Your task to perform on an android device: Search for razer blade on newegg.com, select the first entry, and add it to the cart. Image 0: 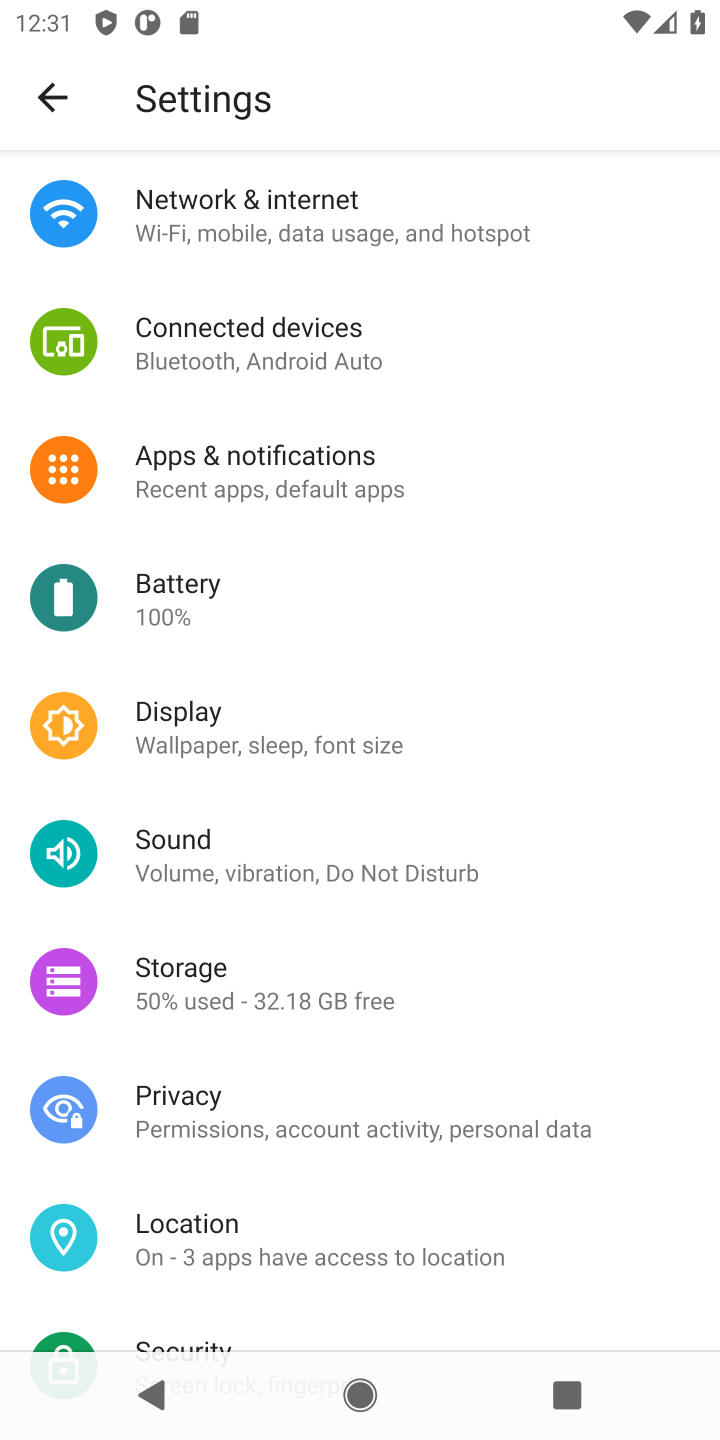
Step 0: press home button
Your task to perform on an android device: Search for razer blade on newegg.com, select the first entry, and add it to the cart. Image 1: 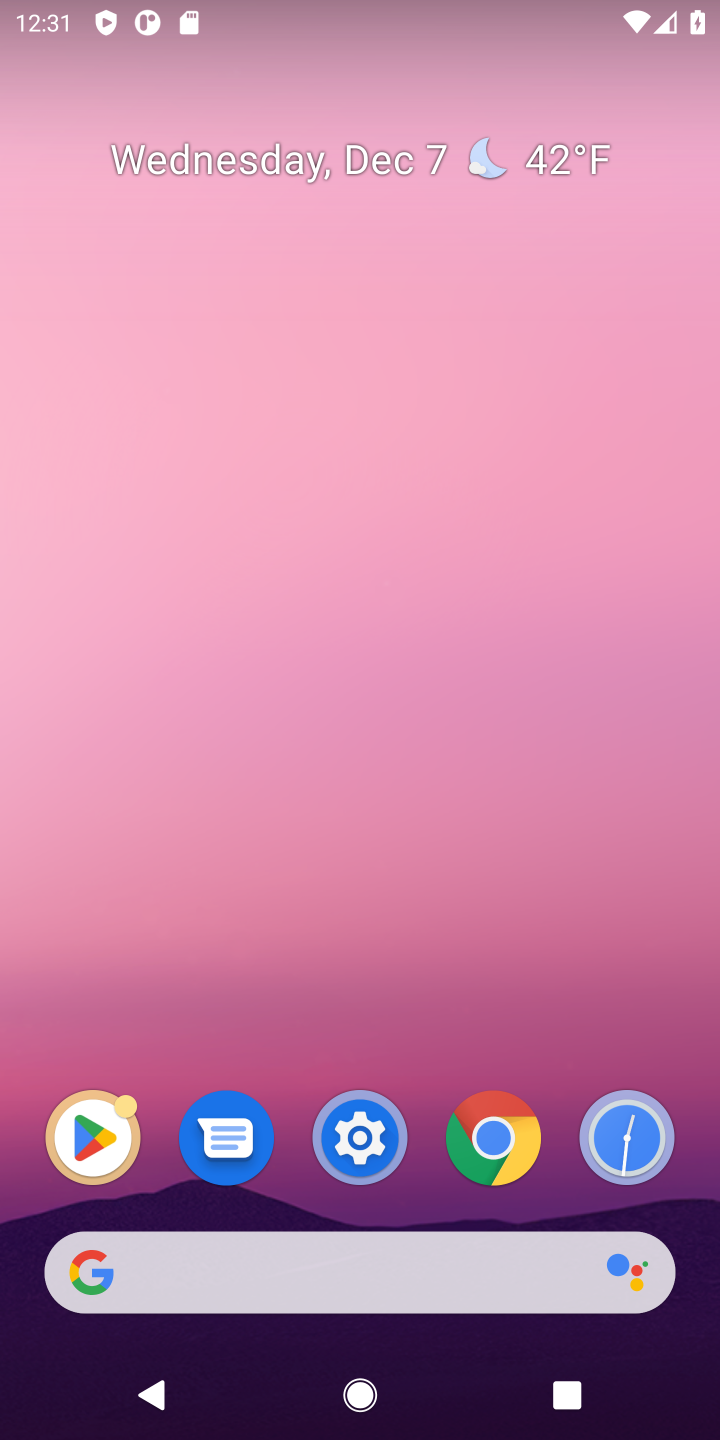
Step 1: click (377, 1255)
Your task to perform on an android device: Search for razer blade on newegg.com, select the first entry, and add it to the cart. Image 2: 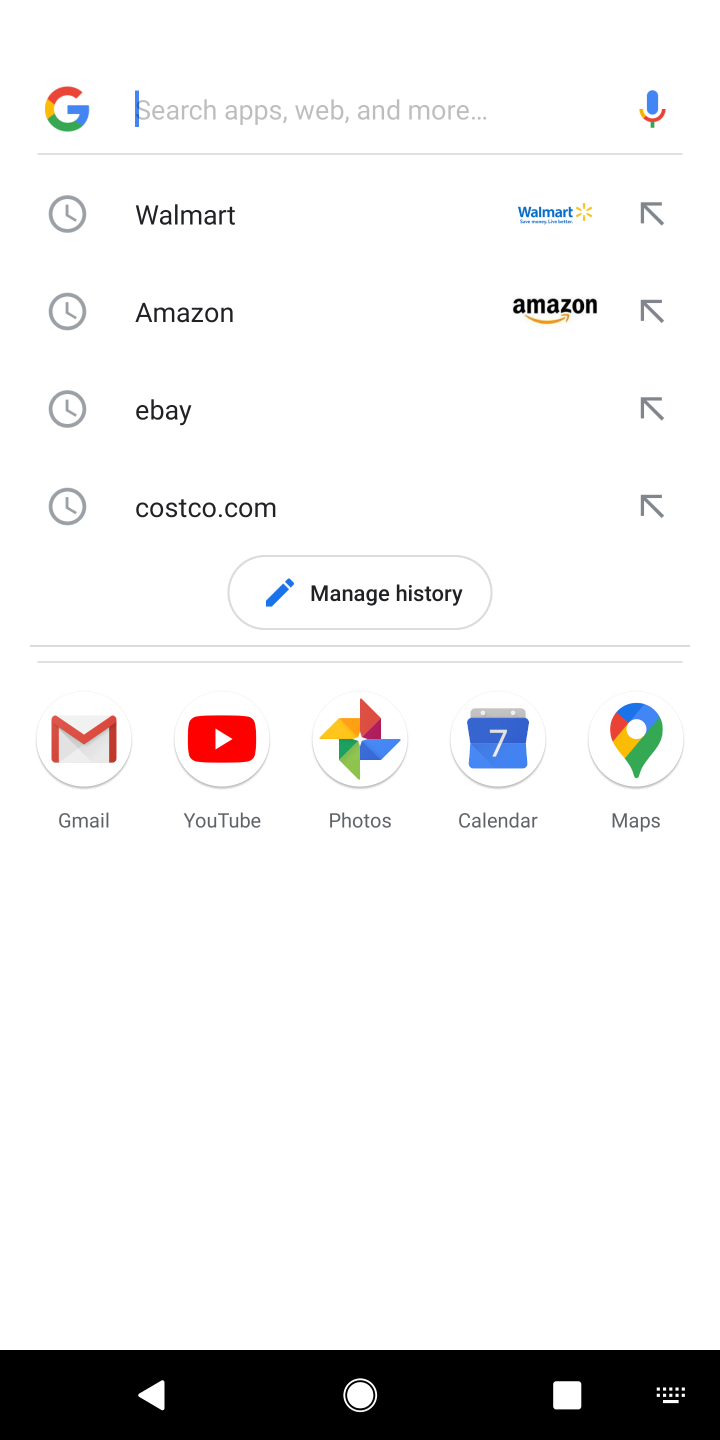
Step 2: type "newegg"
Your task to perform on an android device: Search for razer blade on newegg.com, select the first entry, and add it to the cart. Image 3: 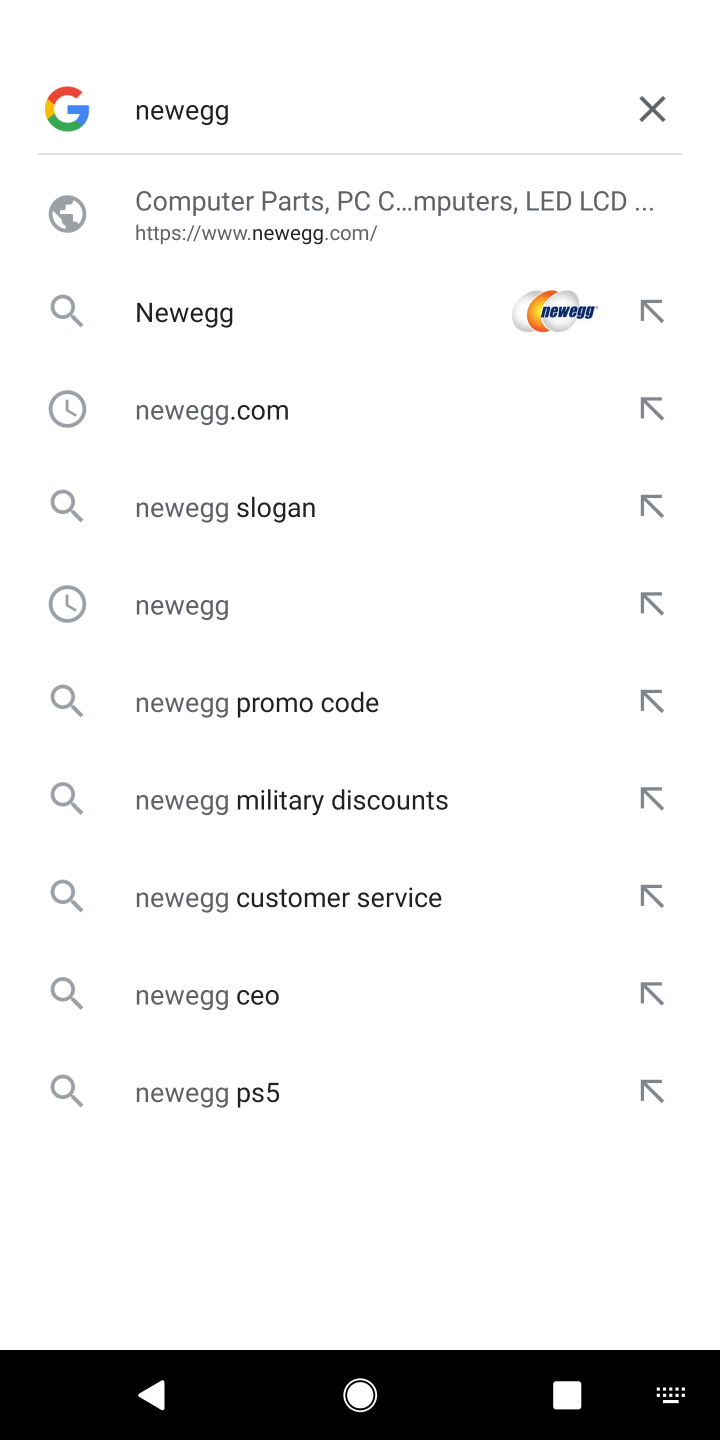
Step 3: click (297, 172)
Your task to perform on an android device: Search for razer blade on newegg.com, select the first entry, and add it to the cart. Image 4: 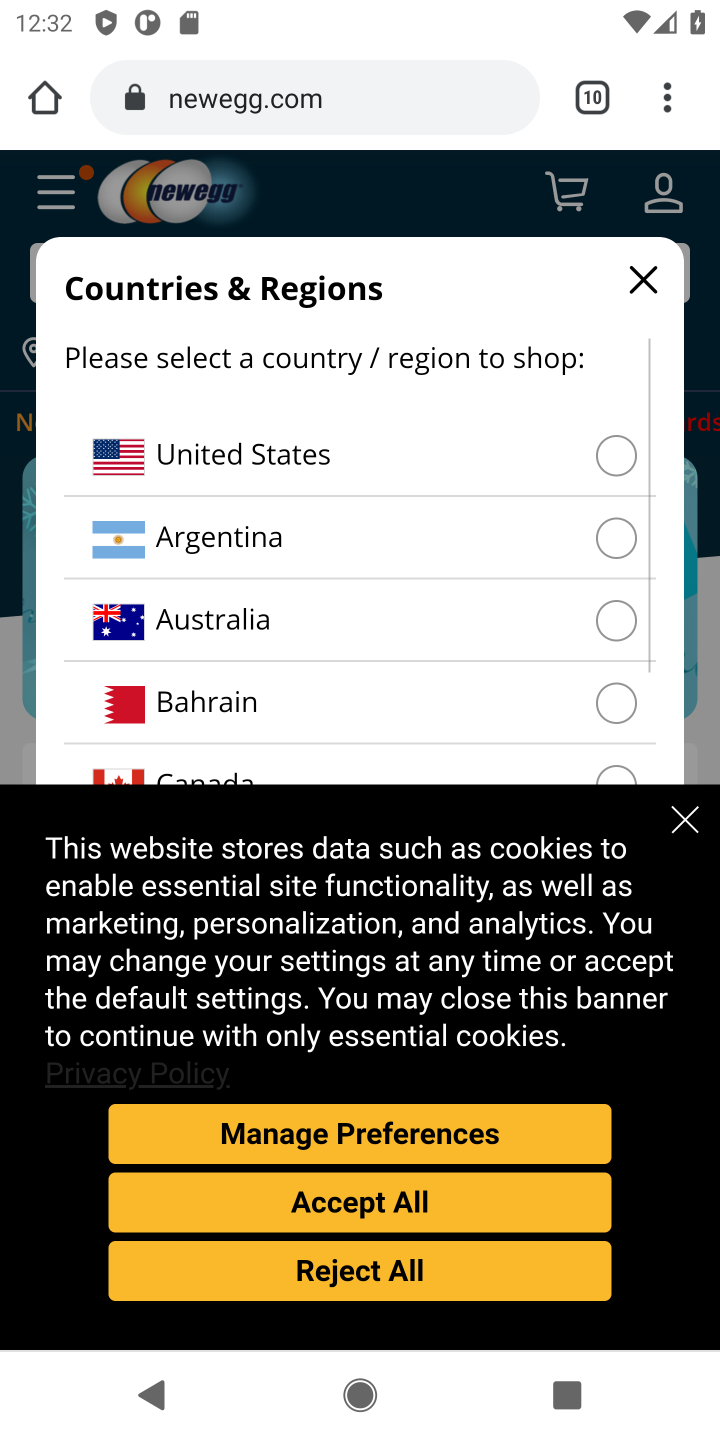
Step 4: click (283, 1228)
Your task to perform on an android device: Search for razer blade on newegg.com, select the first entry, and add it to the cart. Image 5: 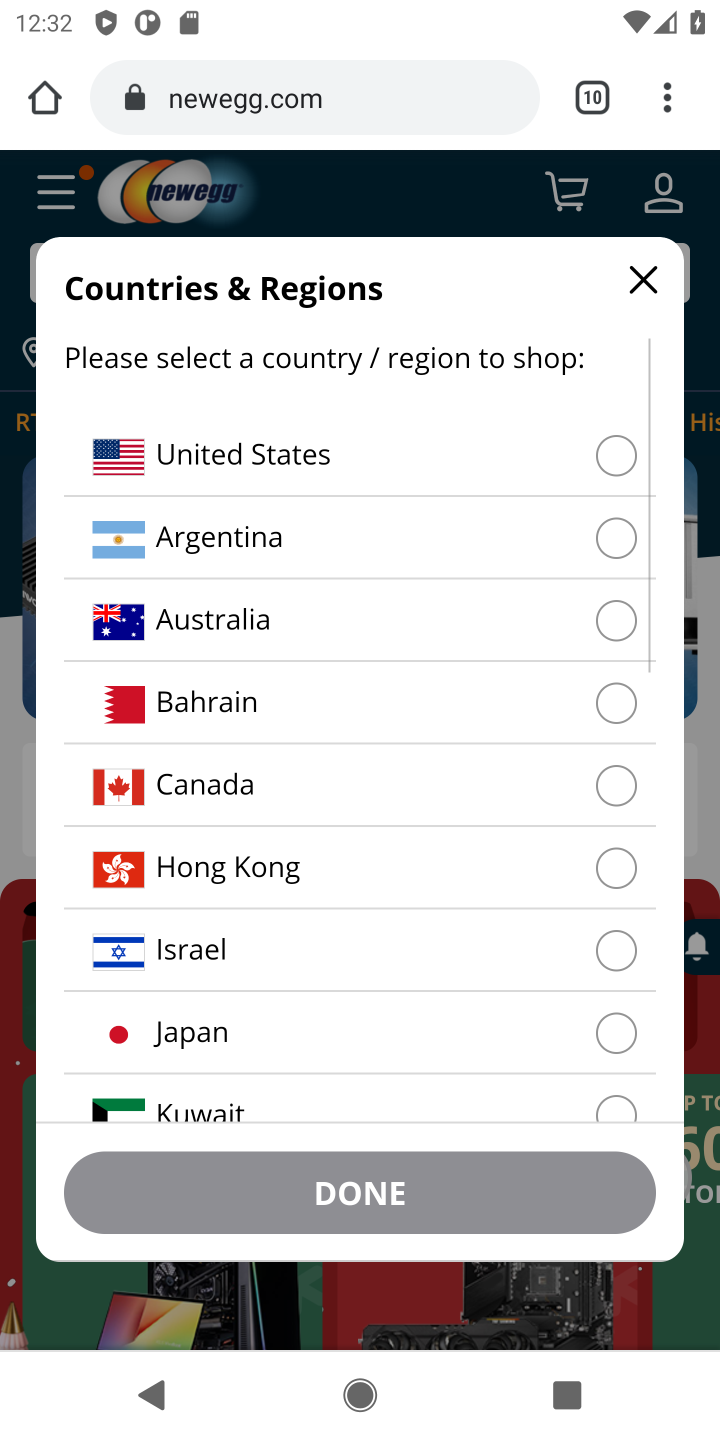
Step 5: click (481, 433)
Your task to perform on an android device: Search for razer blade on newegg.com, select the first entry, and add it to the cart. Image 6: 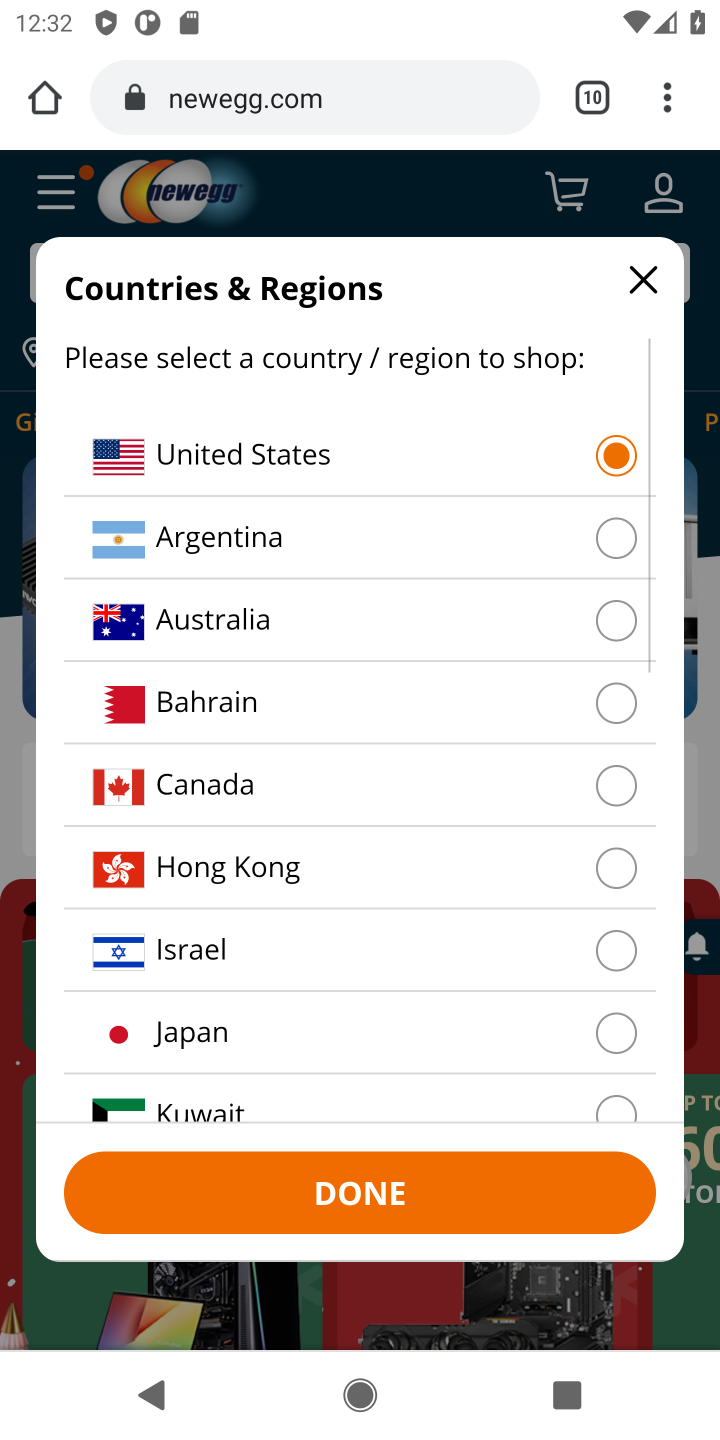
Step 6: click (434, 1184)
Your task to perform on an android device: Search for razer blade on newegg.com, select the first entry, and add it to the cart. Image 7: 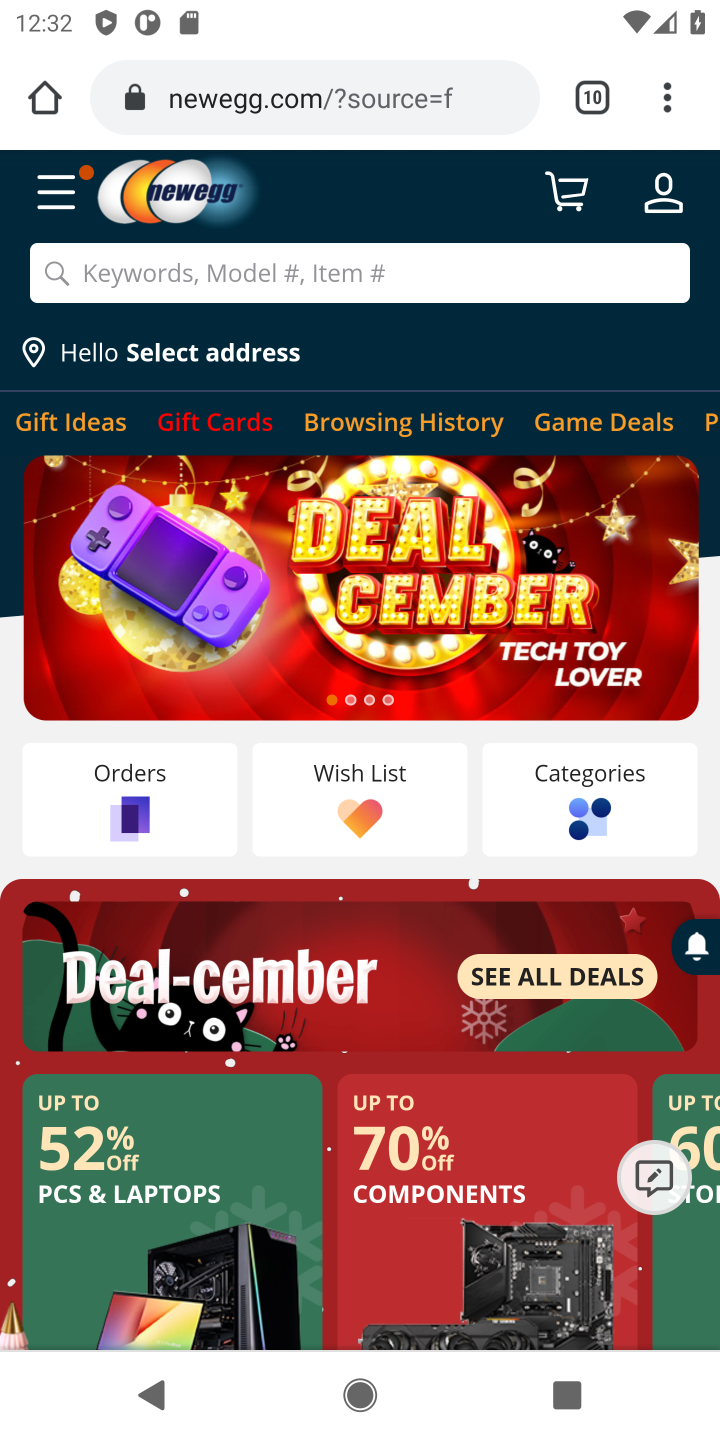
Step 7: type "razer blade"
Your task to perform on an android device: Search for razer blade on newegg.com, select the first entry, and add it to the cart. Image 8: 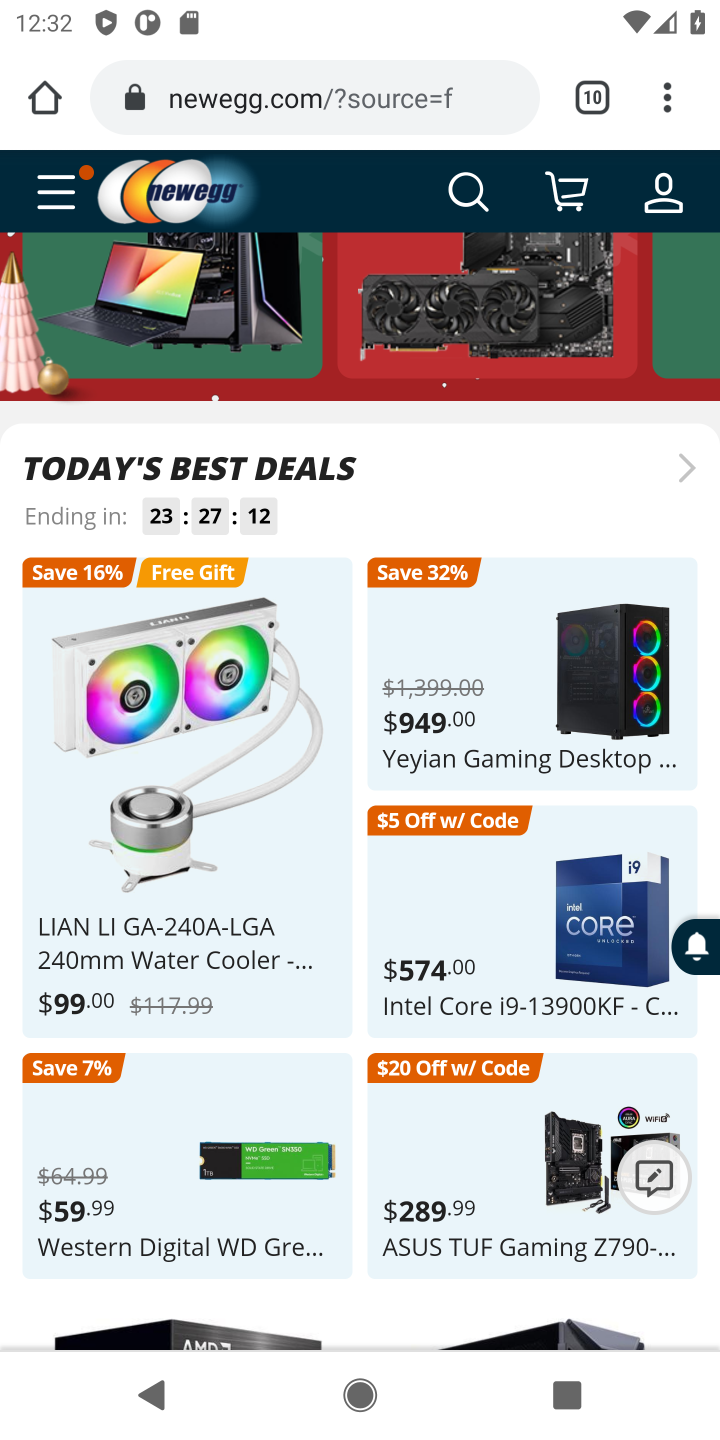
Step 8: task complete